Your task to perform on an android device: Search for sushi restaurants on Maps Image 0: 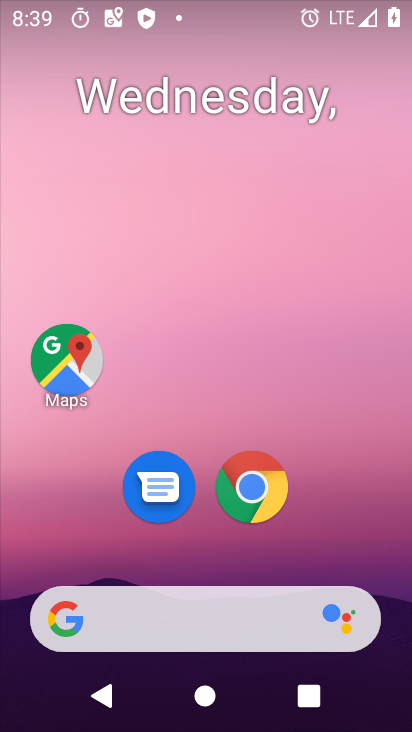
Step 0: click (65, 369)
Your task to perform on an android device: Search for sushi restaurants on Maps Image 1: 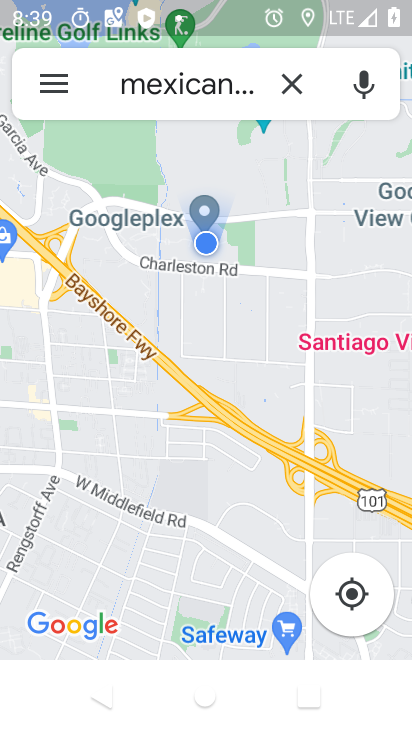
Step 1: click (285, 87)
Your task to perform on an android device: Search for sushi restaurants on Maps Image 2: 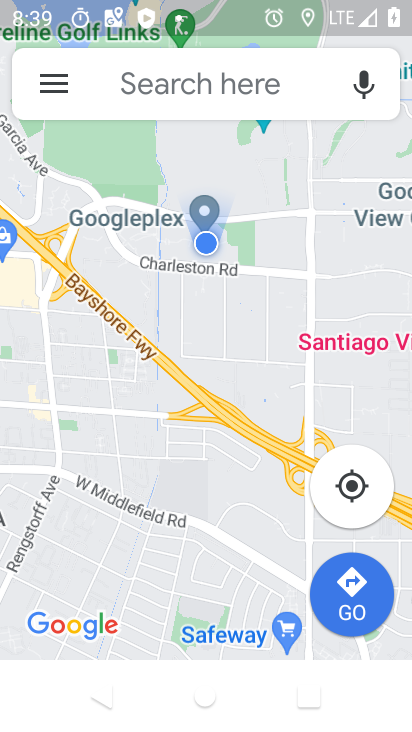
Step 2: click (119, 77)
Your task to perform on an android device: Search for sushi restaurants on Maps Image 3: 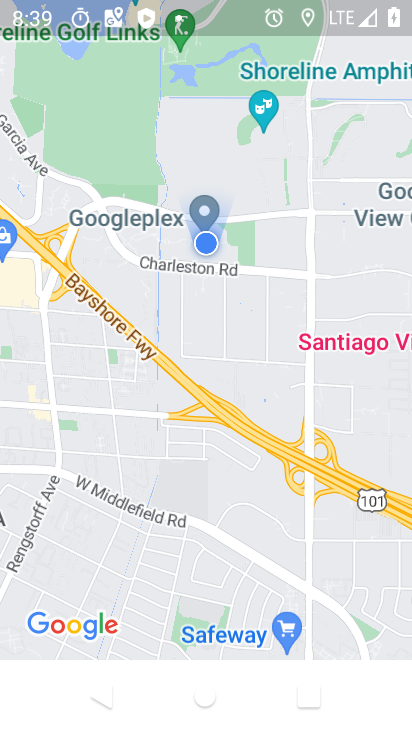
Step 3: click (119, 77)
Your task to perform on an android device: Search for sushi restaurants on Maps Image 4: 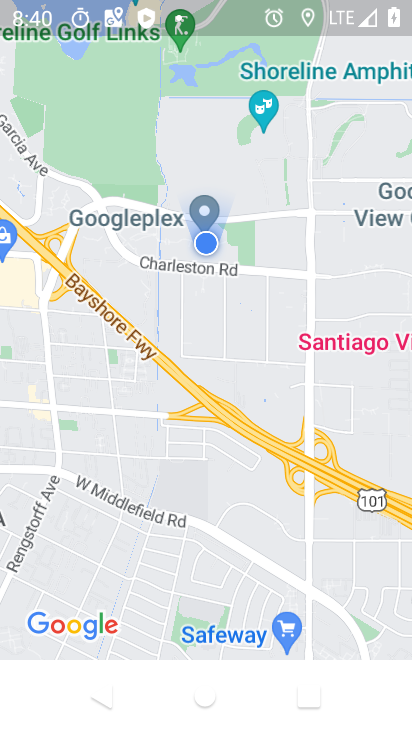
Step 4: click (149, 62)
Your task to perform on an android device: Search for sushi restaurants on Maps Image 5: 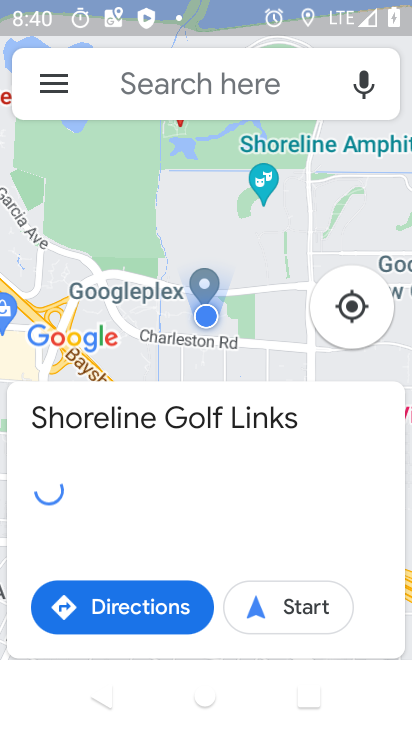
Step 5: click (113, 78)
Your task to perform on an android device: Search for sushi restaurants on Maps Image 6: 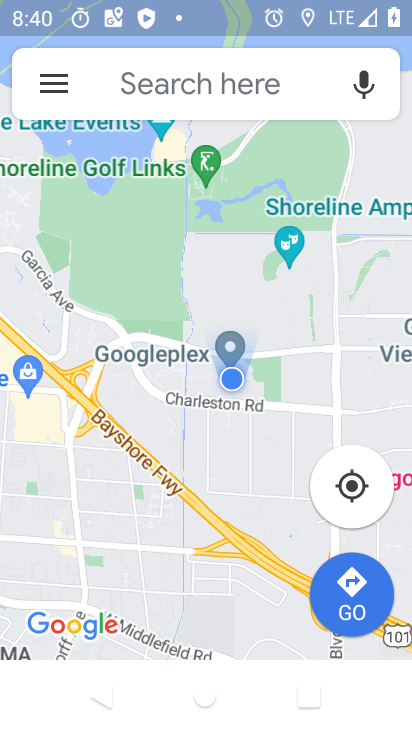
Step 6: click (127, 82)
Your task to perform on an android device: Search for sushi restaurants on Maps Image 7: 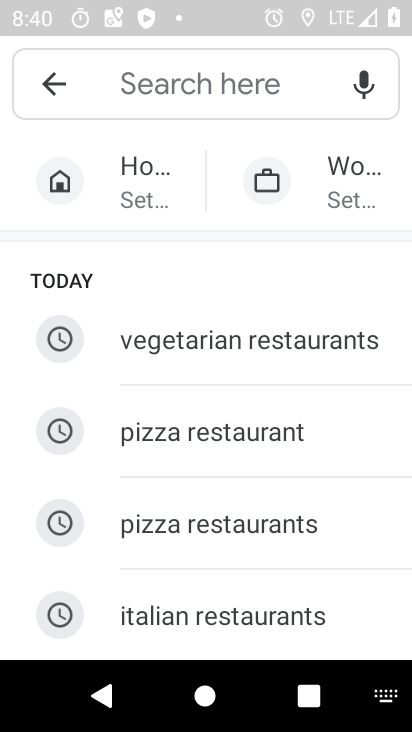
Step 7: type "sushi restaurants"
Your task to perform on an android device: Search for sushi restaurants on Maps Image 8: 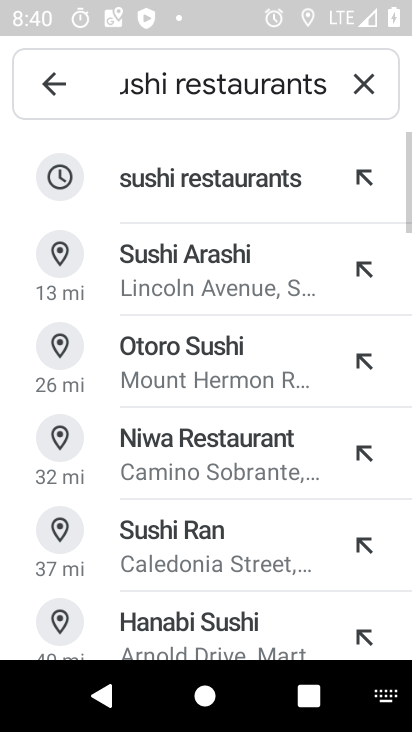
Step 8: click (168, 194)
Your task to perform on an android device: Search for sushi restaurants on Maps Image 9: 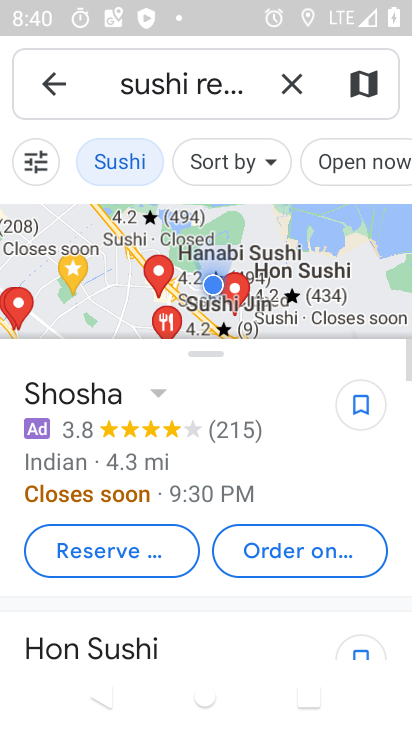
Step 9: task complete